Your task to perform on an android device: Go to Google maps Image 0: 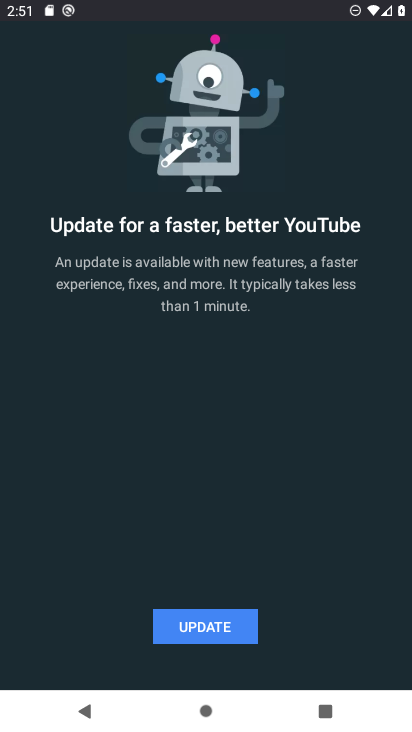
Step 0: press home button
Your task to perform on an android device: Go to Google maps Image 1: 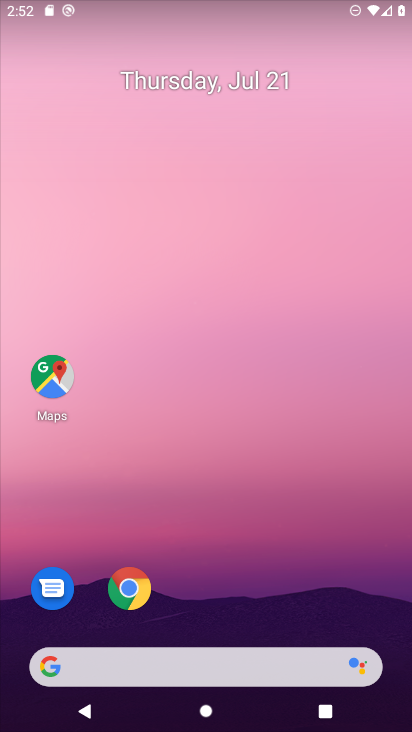
Step 1: click (281, 408)
Your task to perform on an android device: Go to Google maps Image 2: 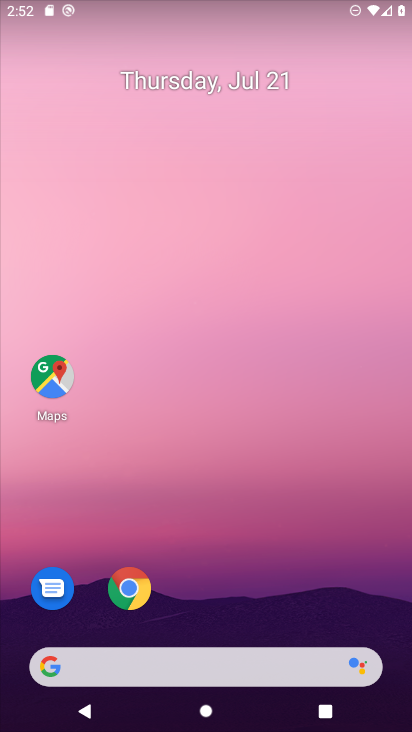
Step 2: drag from (290, 593) to (201, 0)
Your task to perform on an android device: Go to Google maps Image 3: 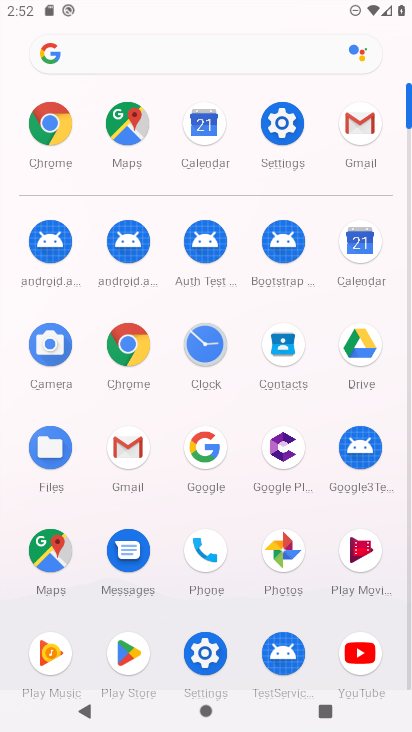
Step 3: click (50, 542)
Your task to perform on an android device: Go to Google maps Image 4: 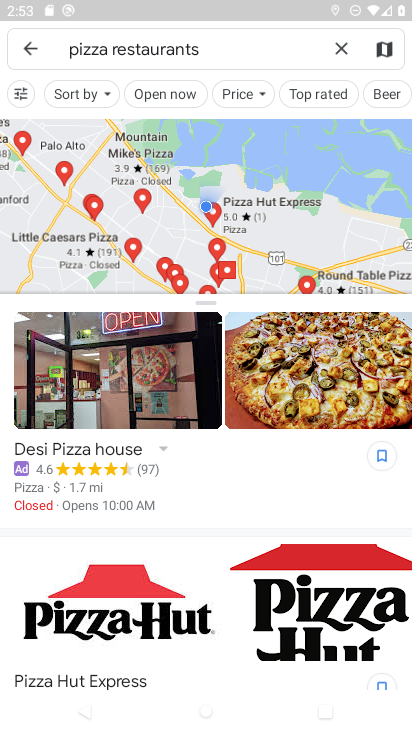
Step 4: task complete